Your task to perform on an android device: install app "DoorDash - Dasher" Image 0: 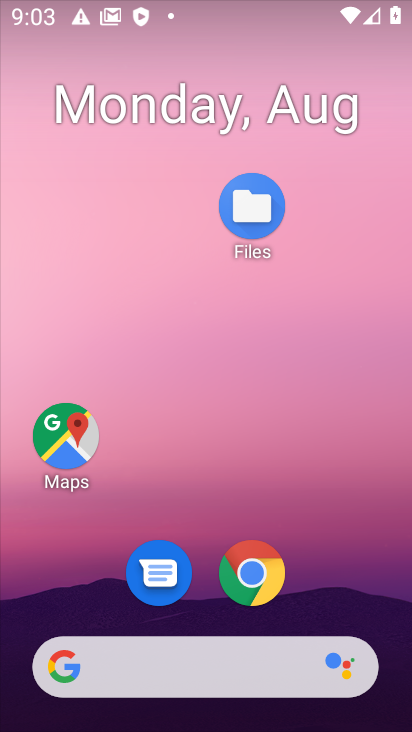
Step 0: drag from (273, 529) to (229, 177)
Your task to perform on an android device: install app "DoorDash - Dasher" Image 1: 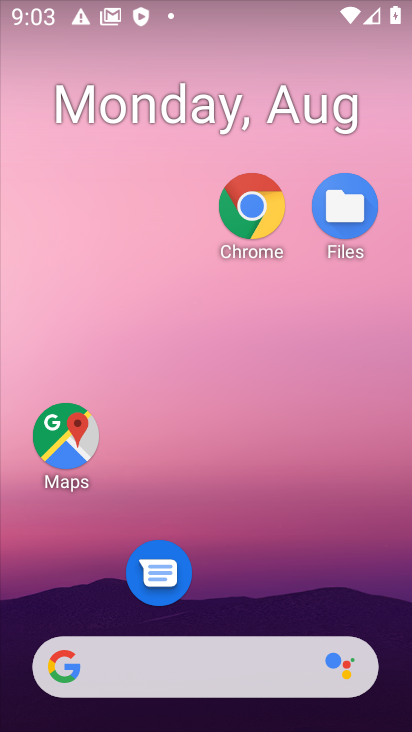
Step 1: drag from (287, 648) to (220, 131)
Your task to perform on an android device: install app "DoorDash - Dasher" Image 2: 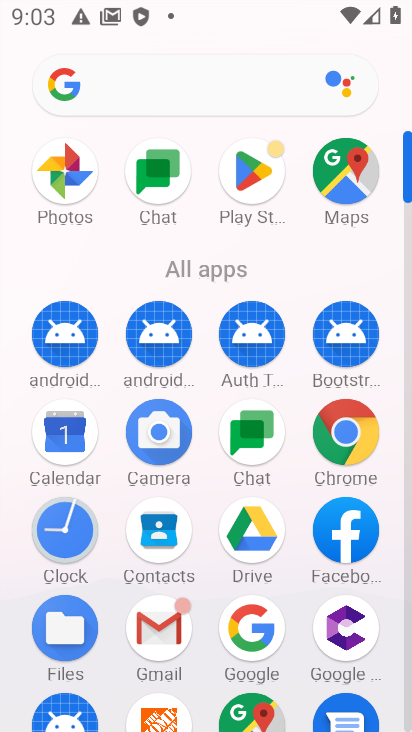
Step 2: click (248, 169)
Your task to perform on an android device: install app "DoorDash - Dasher" Image 3: 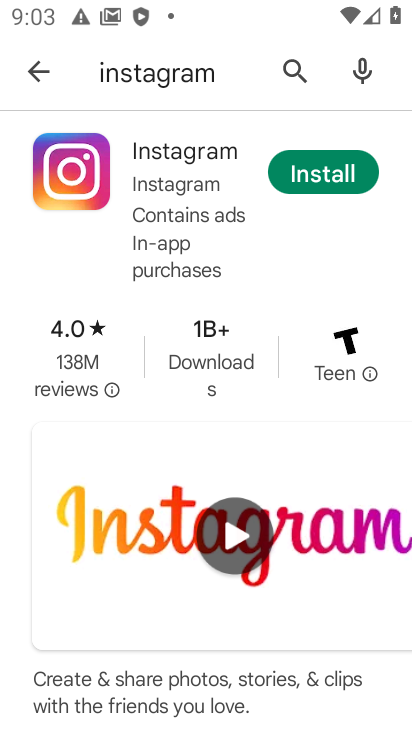
Step 3: click (292, 71)
Your task to perform on an android device: install app "DoorDash - Dasher" Image 4: 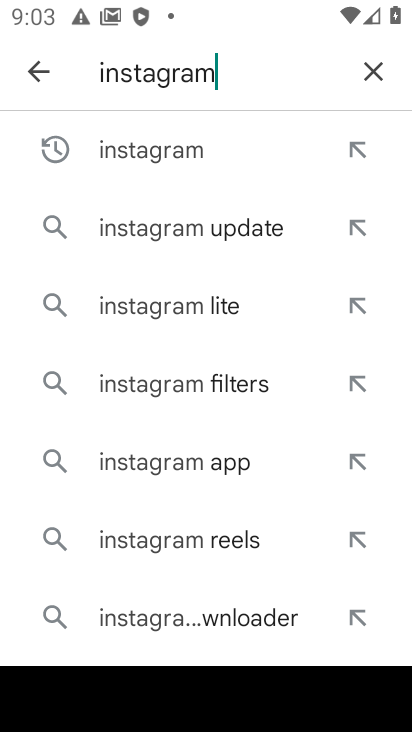
Step 4: click (382, 62)
Your task to perform on an android device: install app "DoorDash - Dasher" Image 5: 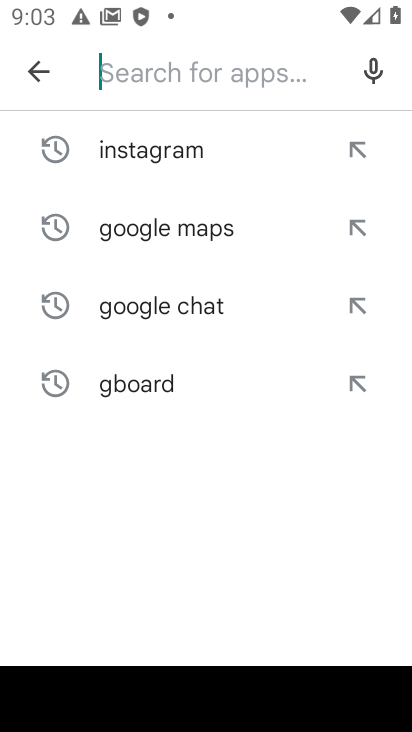
Step 5: type "doordash"
Your task to perform on an android device: install app "DoorDash - Dasher" Image 6: 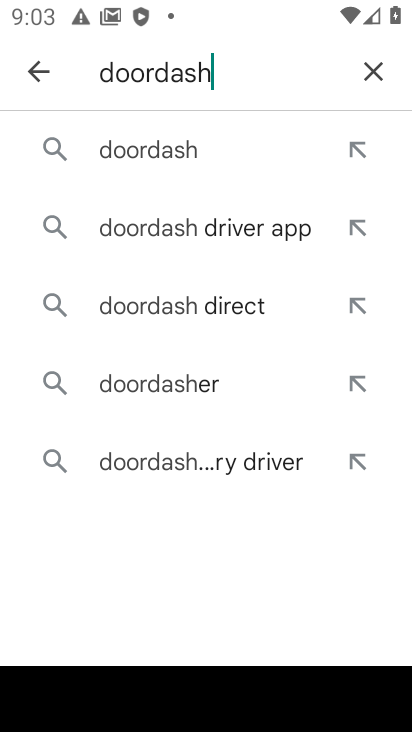
Step 6: click (142, 156)
Your task to perform on an android device: install app "DoorDash - Dasher" Image 7: 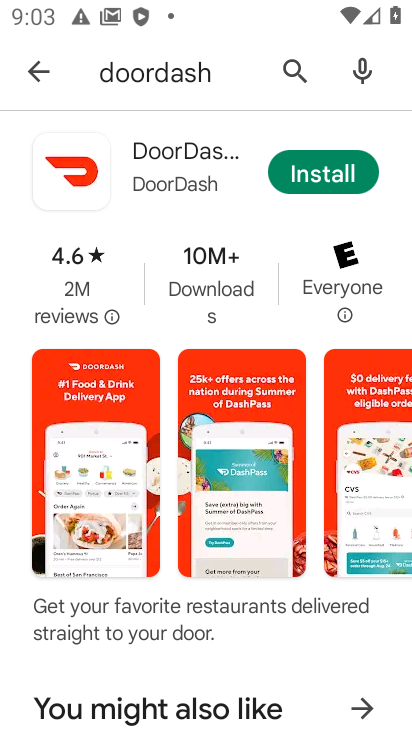
Step 7: click (305, 174)
Your task to perform on an android device: install app "DoorDash - Dasher" Image 8: 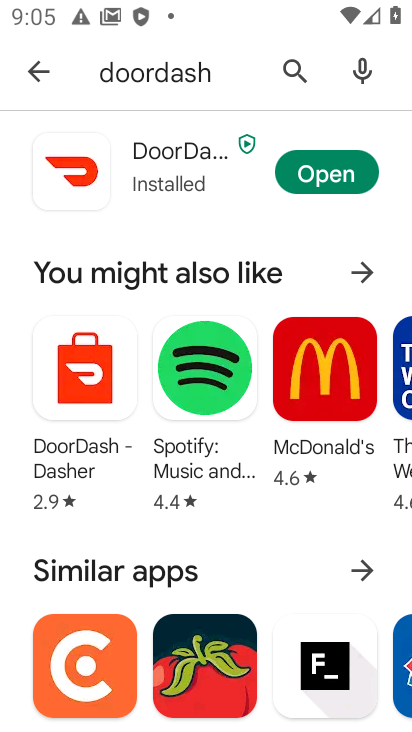
Step 8: task complete